Your task to perform on an android device: Play the last video I watched on Youtube Image 0: 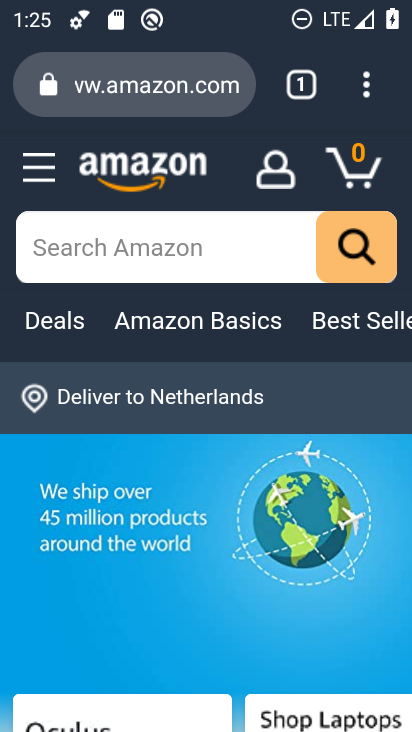
Step 0: press home button
Your task to perform on an android device: Play the last video I watched on Youtube Image 1: 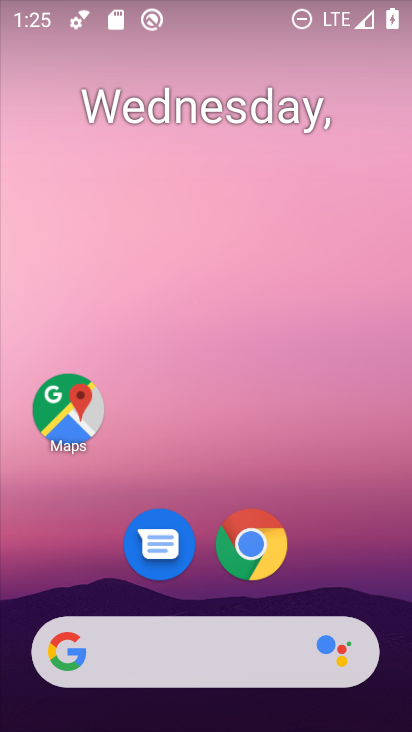
Step 1: drag from (311, 574) to (280, 28)
Your task to perform on an android device: Play the last video I watched on Youtube Image 2: 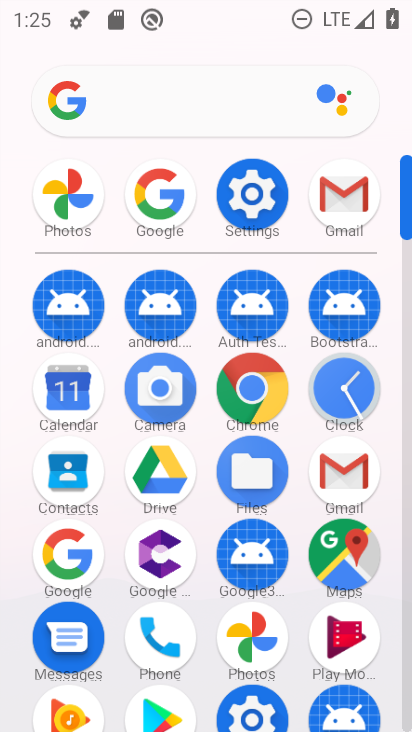
Step 2: drag from (296, 536) to (300, 320)
Your task to perform on an android device: Play the last video I watched on Youtube Image 3: 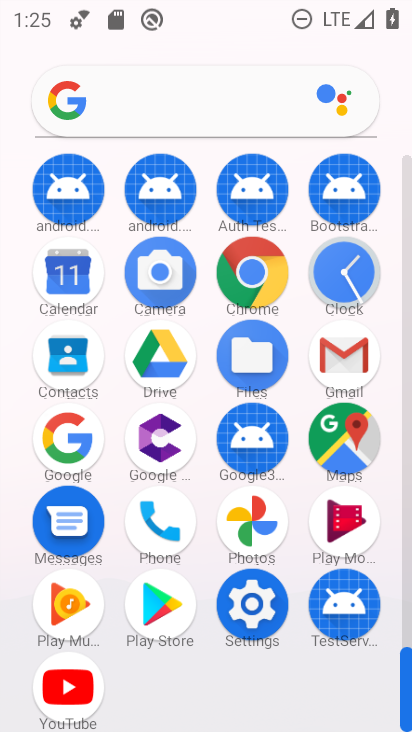
Step 3: click (76, 688)
Your task to perform on an android device: Play the last video I watched on Youtube Image 4: 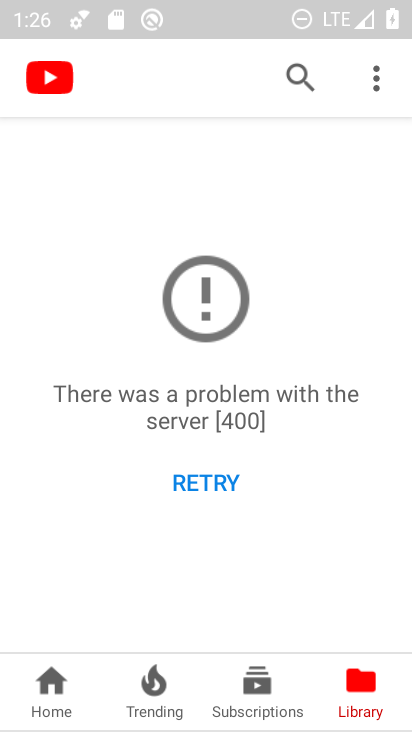
Step 4: click (371, 707)
Your task to perform on an android device: Play the last video I watched on Youtube Image 5: 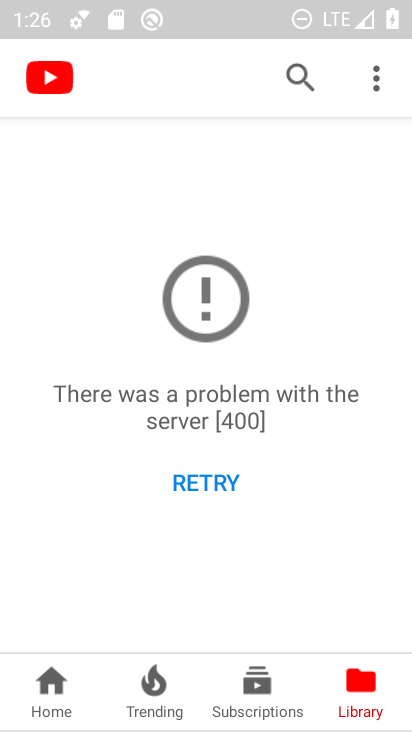
Step 5: click (219, 485)
Your task to perform on an android device: Play the last video I watched on Youtube Image 6: 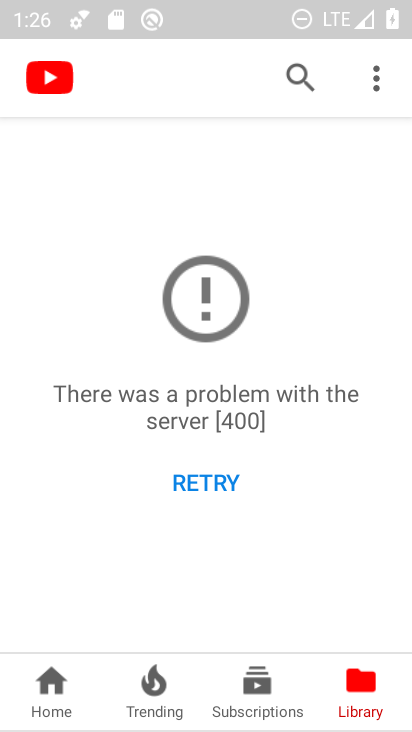
Step 6: click (219, 482)
Your task to perform on an android device: Play the last video I watched on Youtube Image 7: 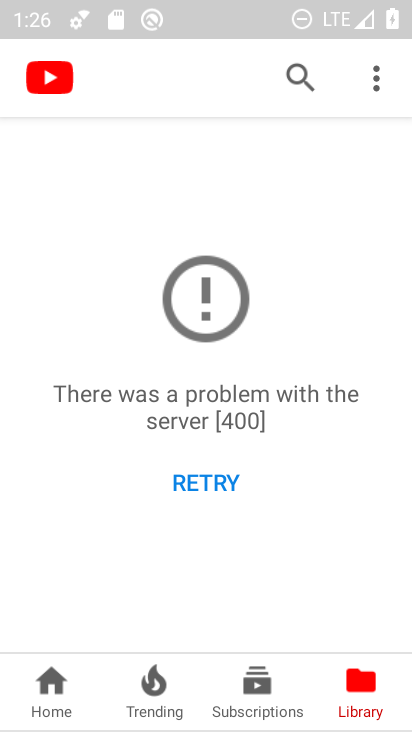
Step 7: task complete